Your task to perform on an android device: Go to calendar. Show me events next week Image 0: 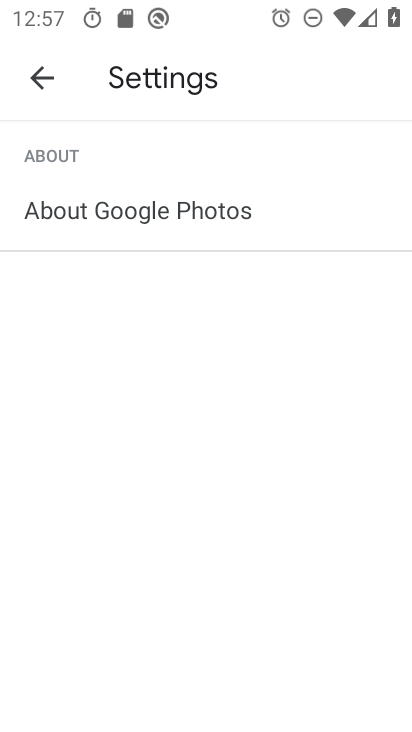
Step 0: press back button
Your task to perform on an android device: Go to calendar. Show me events next week Image 1: 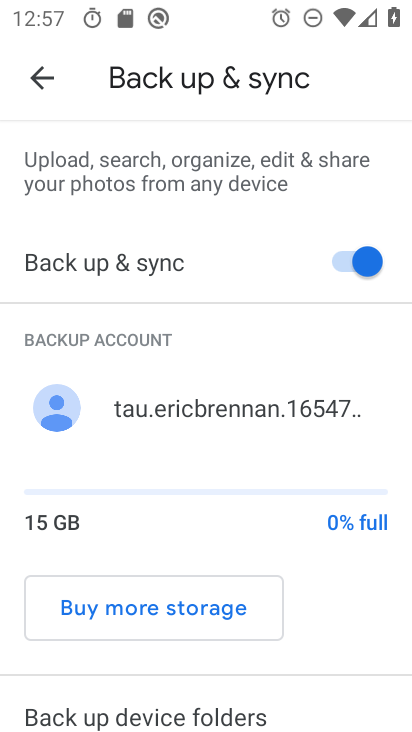
Step 1: press back button
Your task to perform on an android device: Go to calendar. Show me events next week Image 2: 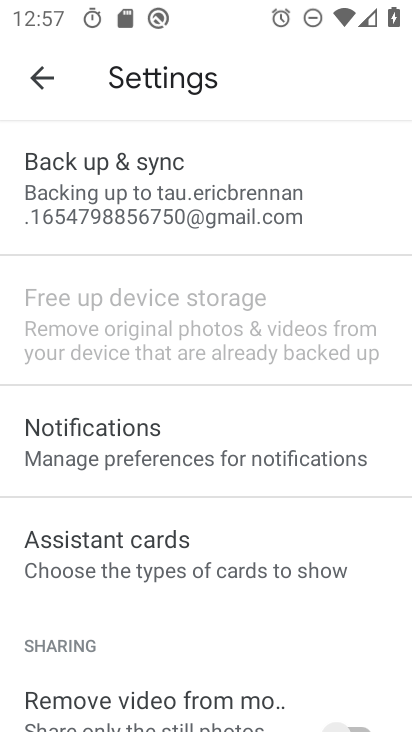
Step 2: press back button
Your task to perform on an android device: Go to calendar. Show me events next week Image 3: 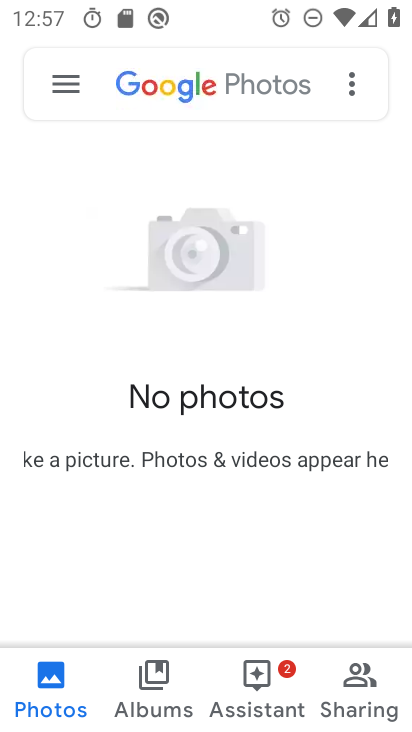
Step 3: press back button
Your task to perform on an android device: Go to calendar. Show me events next week Image 4: 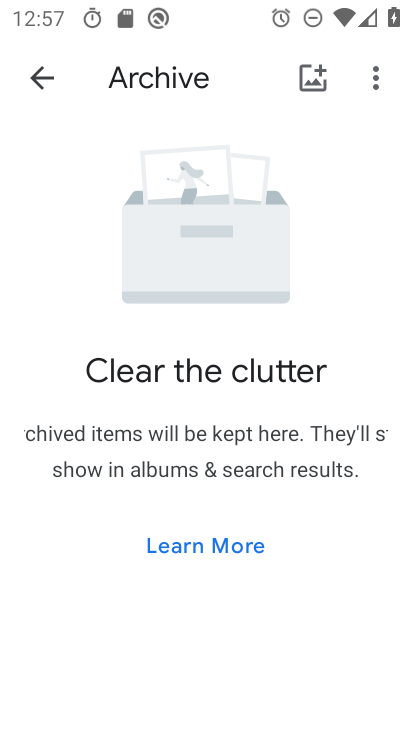
Step 4: press back button
Your task to perform on an android device: Go to calendar. Show me events next week Image 5: 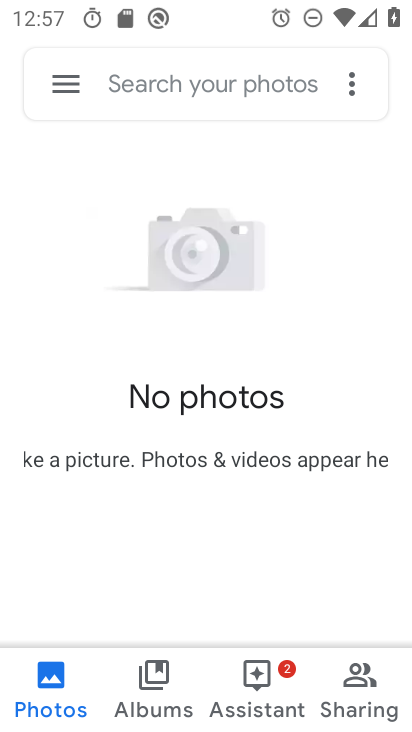
Step 5: press back button
Your task to perform on an android device: Go to calendar. Show me events next week Image 6: 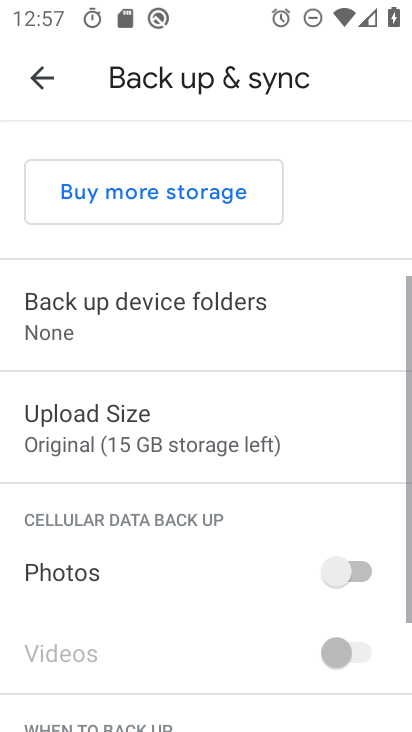
Step 6: press back button
Your task to perform on an android device: Go to calendar. Show me events next week Image 7: 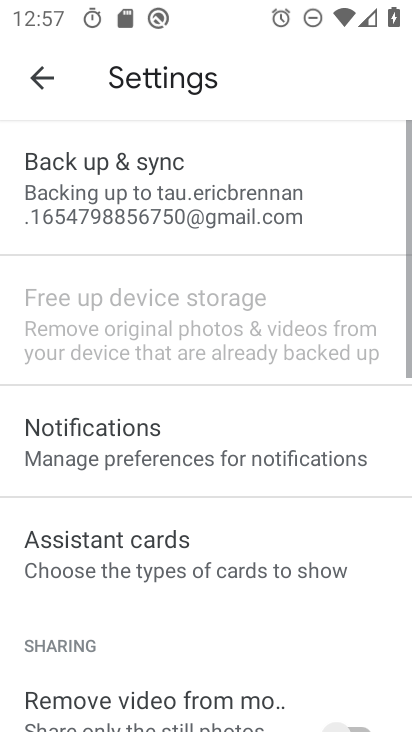
Step 7: press back button
Your task to perform on an android device: Go to calendar. Show me events next week Image 8: 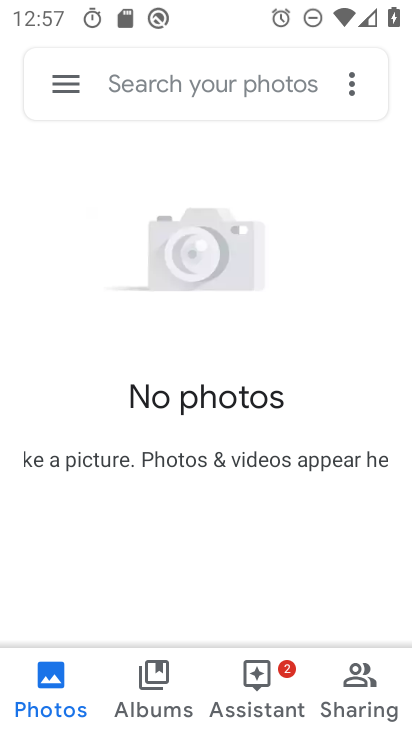
Step 8: press back button
Your task to perform on an android device: Go to calendar. Show me events next week Image 9: 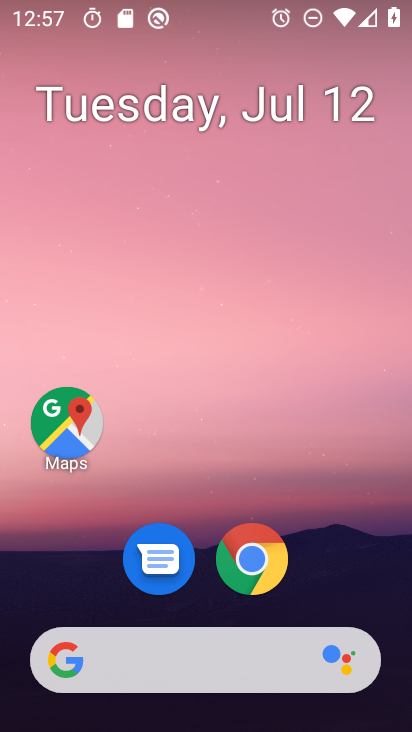
Step 9: drag from (229, 579) to (323, 24)
Your task to perform on an android device: Go to calendar. Show me events next week Image 10: 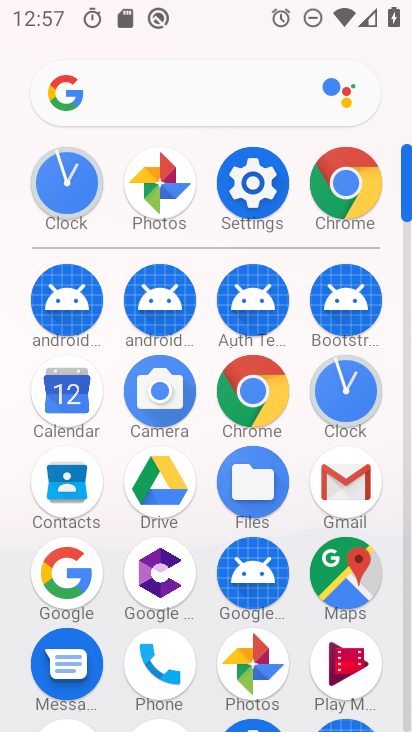
Step 10: click (71, 392)
Your task to perform on an android device: Go to calendar. Show me events next week Image 11: 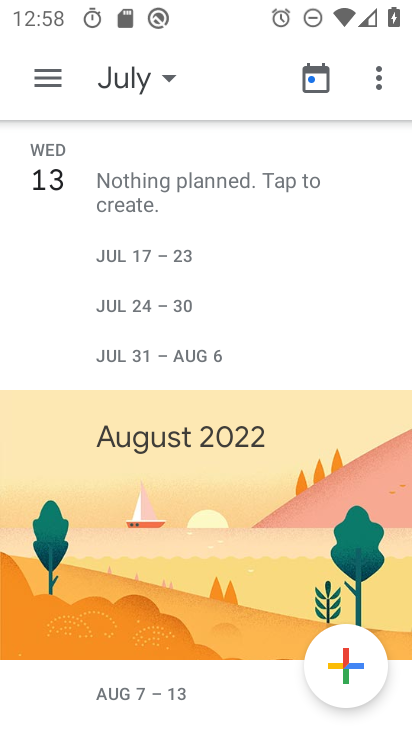
Step 11: click (142, 80)
Your task to perform on an android device: Go to calendar. Show me events next week Image 12: 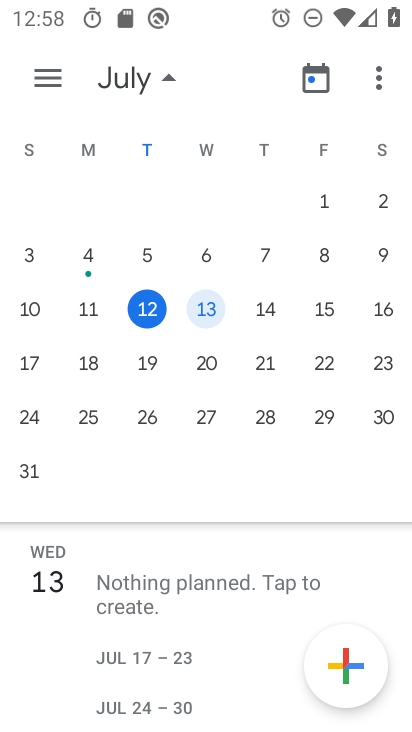
Step 12: click (93, 360)
Your task to perform on an android device: Go to calendar. Show me events next week Image 13: 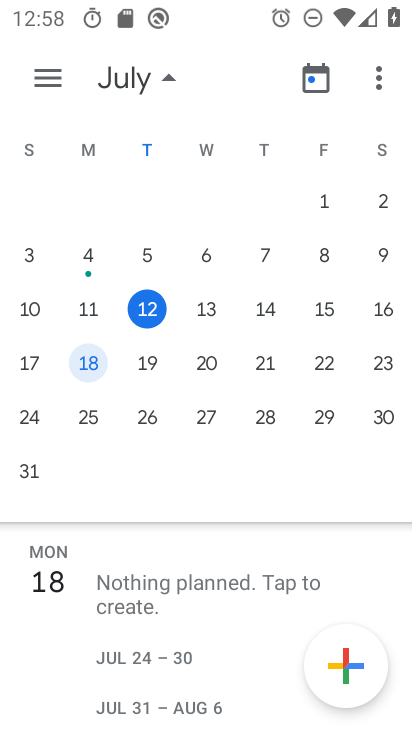
Step 13: task complete